Your task to perform on an android device: toggle sleep mode Image 0: 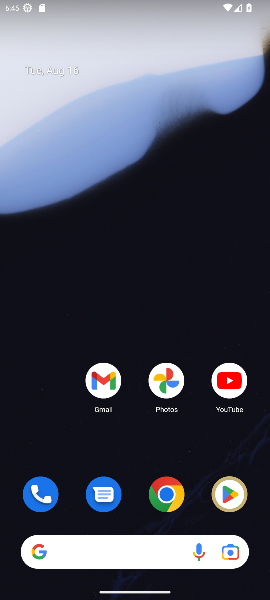
Step 0: drag from (56, 416) to (72, 109)
Your task to perform on an android device: toggle sleep mode Image 1: 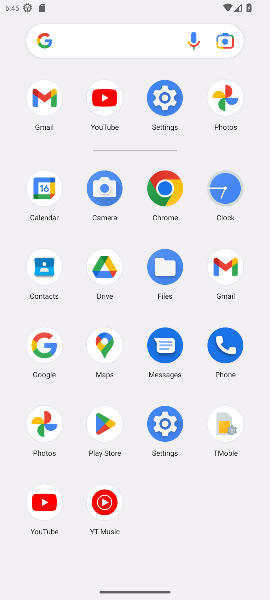
Step 1: click (161, 432)
Your task to perform on an android device: toggle sleep mode Image 2: 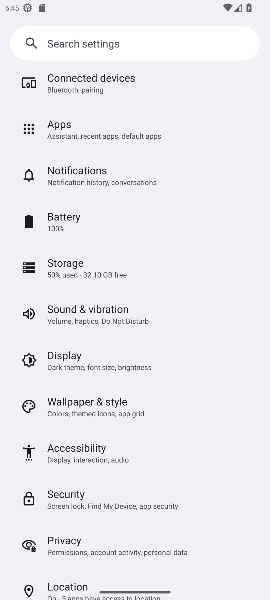
Step 2: task complete